Your task to perform on an android device: delete a single message in the gmail app Image 0: 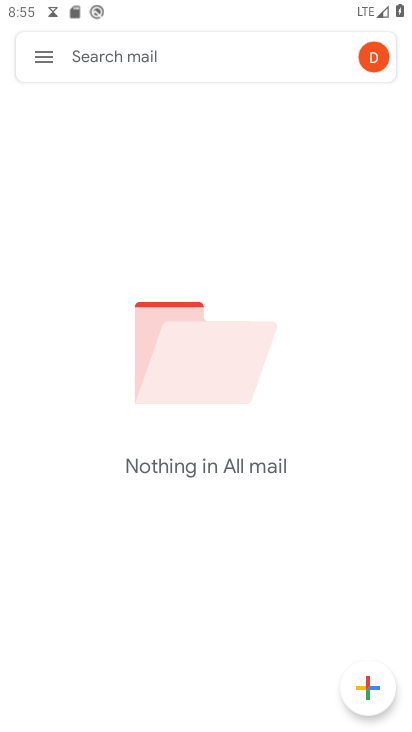
Step 0: click (35, 51)
Your task to perform on an android device: delete a single message in the gmail app Image 1: 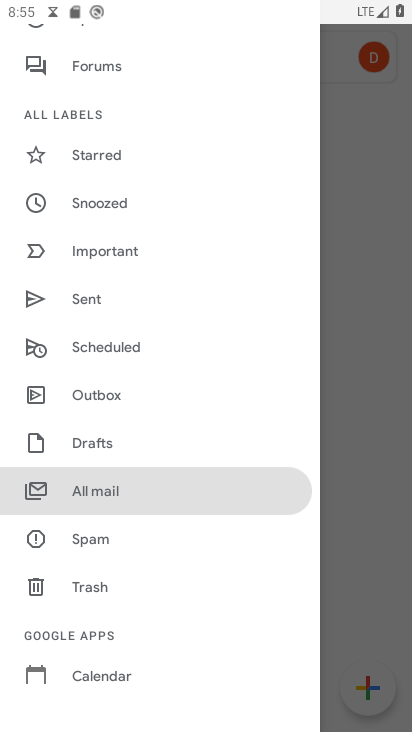
Step 1: click (342, 380)
Your task to perform on an android device: delete a single message in the gmail app Image 2: 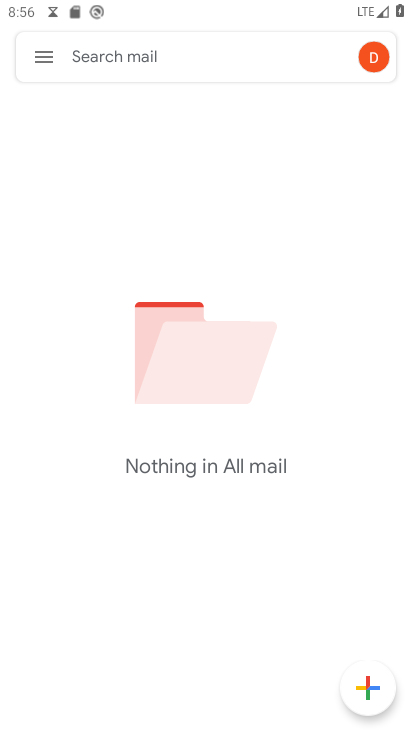
Step 2: task complete